Your task to perform on an android device: turn pop-ups on in chrome Image 0: 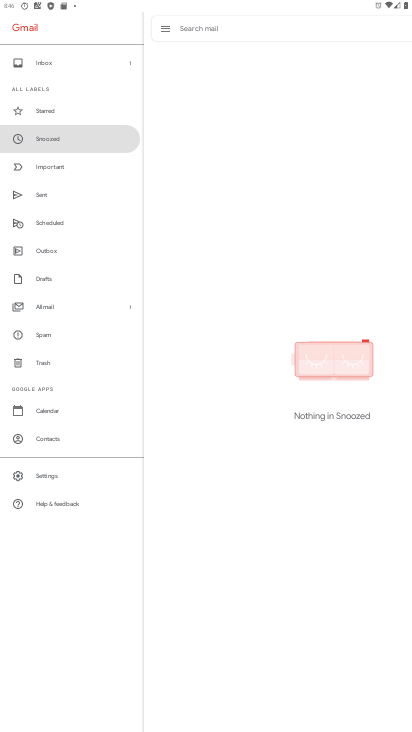
Step 0: press home button
Your task to perform on an android device: turn pop-ups on in chrome Image 1: 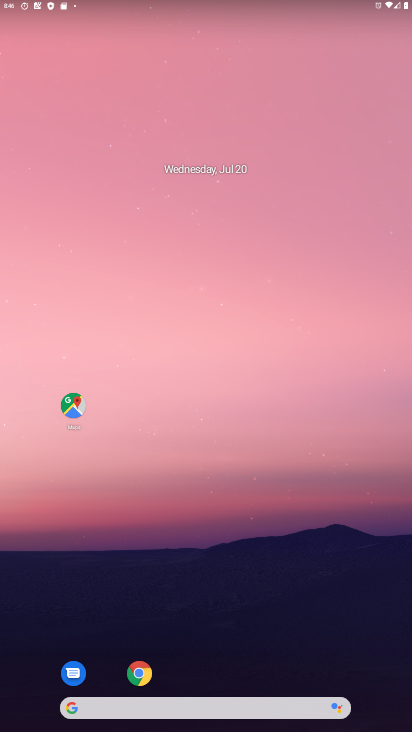
Step 1: click (141, 672)
Your task to perform on an android device: turn pop-ups on in chrome Image 2: 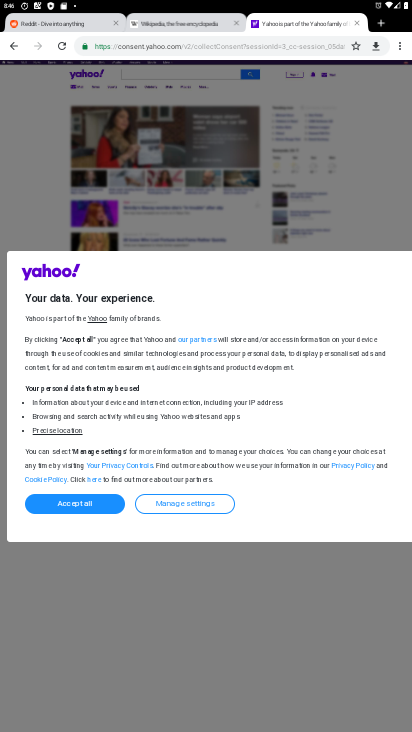
Step 2: click (396, 48)
Your task to perform on an android device: turn pop-ups on in chrome Image 3: 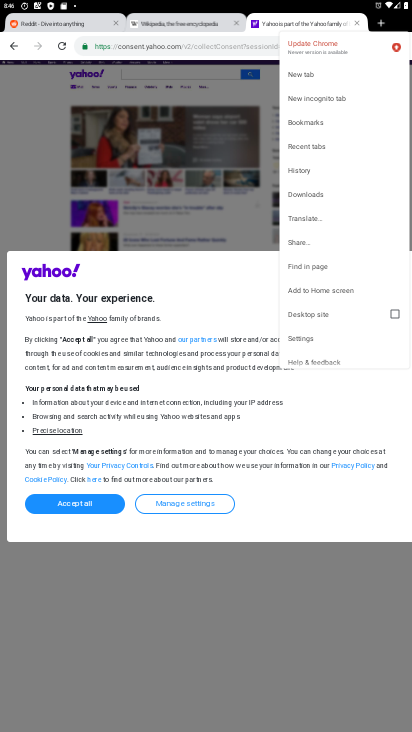
Step 3: click (314, 337)
Your task to perform on an android device: turn pop-ups on in chrome Image 4: 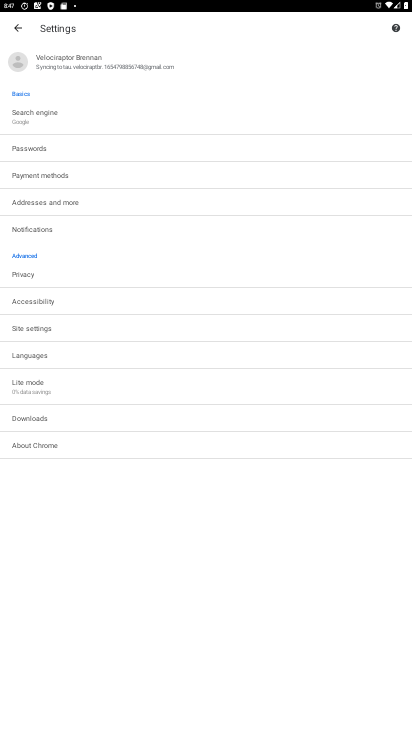
Step 4: click (46, 329)
Your task to perform on an android device: turn pop-ups on in chrome Image 5: 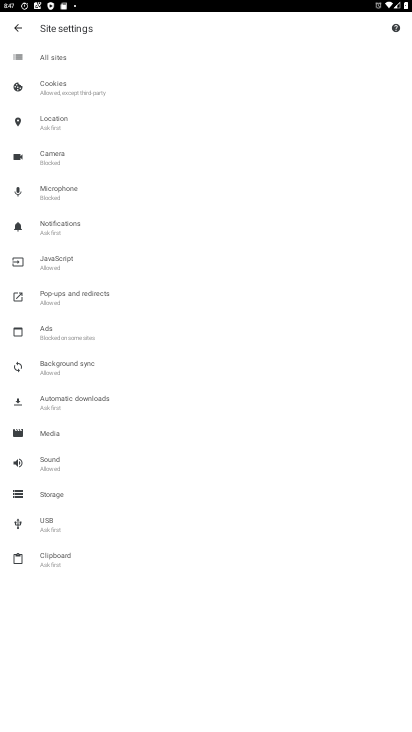
Step 5: click (69, 293)
Your task to perform on an android device: turn pop-ups on in chrome Image 6: 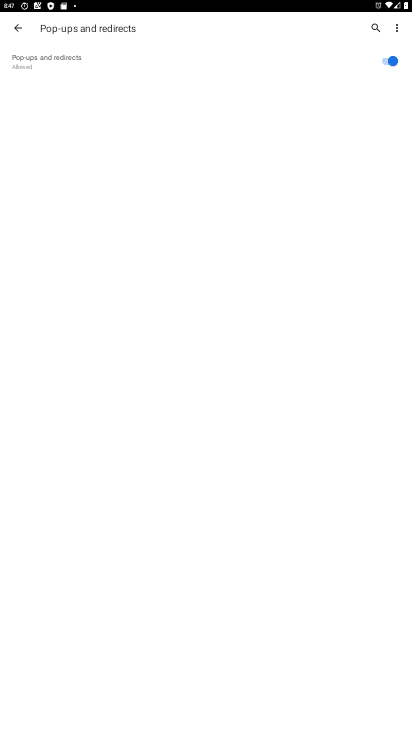
Step 6: task complete